Your task to perform on an android device: turn on airplane mode Image 0: 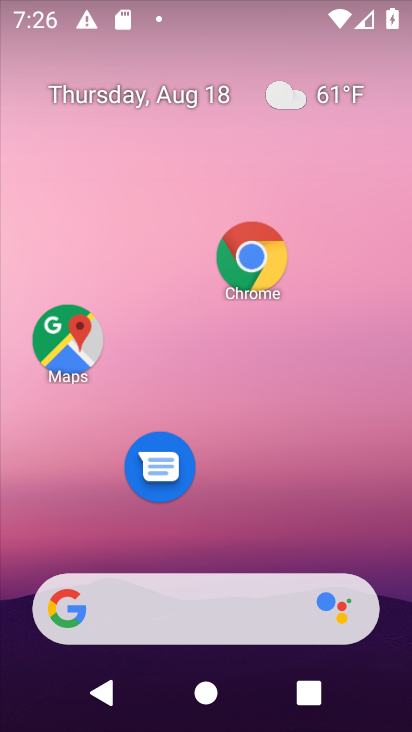
Step 0: drag from (273, 519) to (228, 129)
Your task to perform on an android device: turn on airplane mode Image 1: 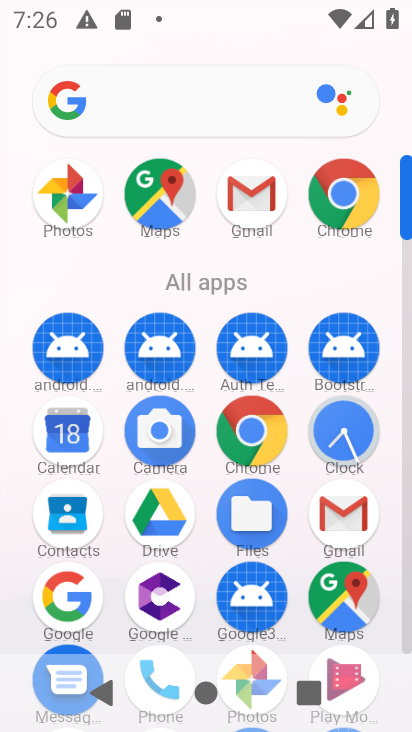
Step 1: task complete